Your task to perform on an android device: Search for flights from NYC to San Francisco Image 0: 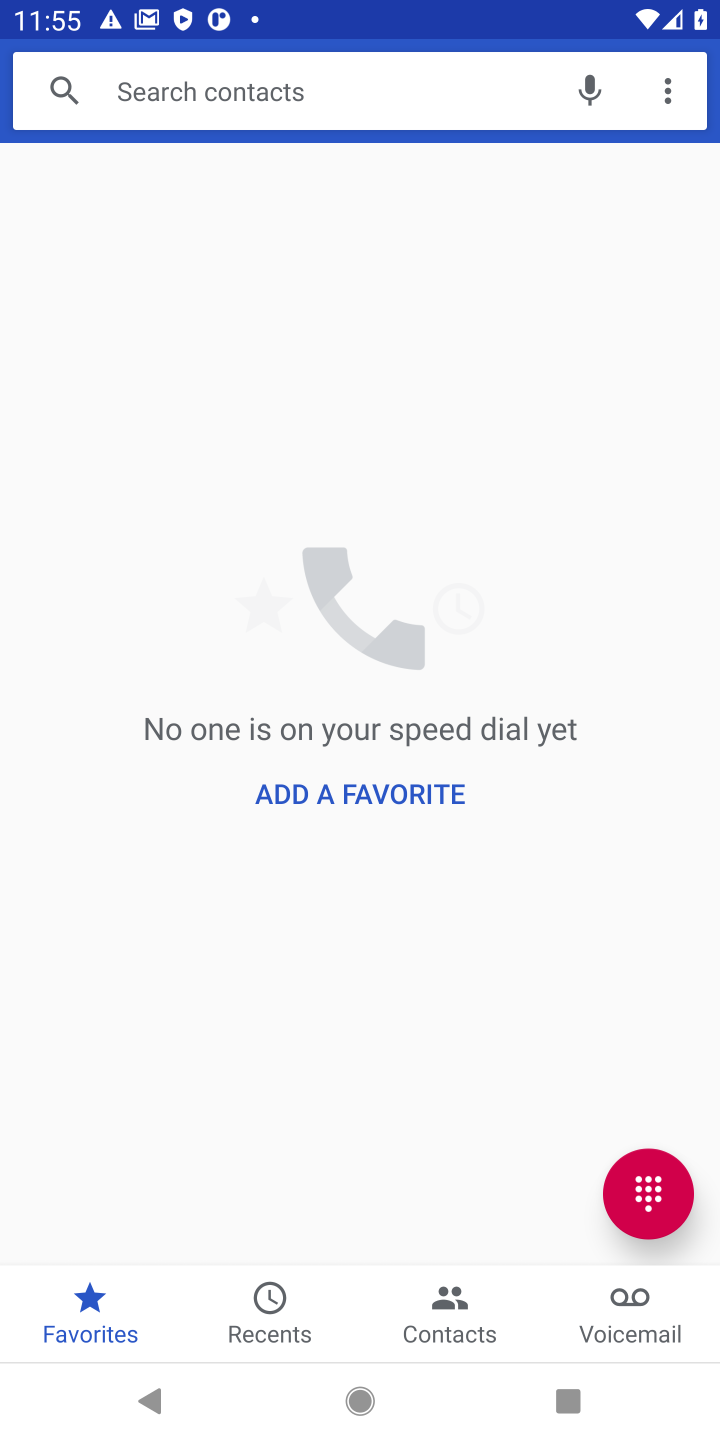
Step 0: press home button
Your task to perform on an android device: Search for flights from NYC to San Francisco Image 1: 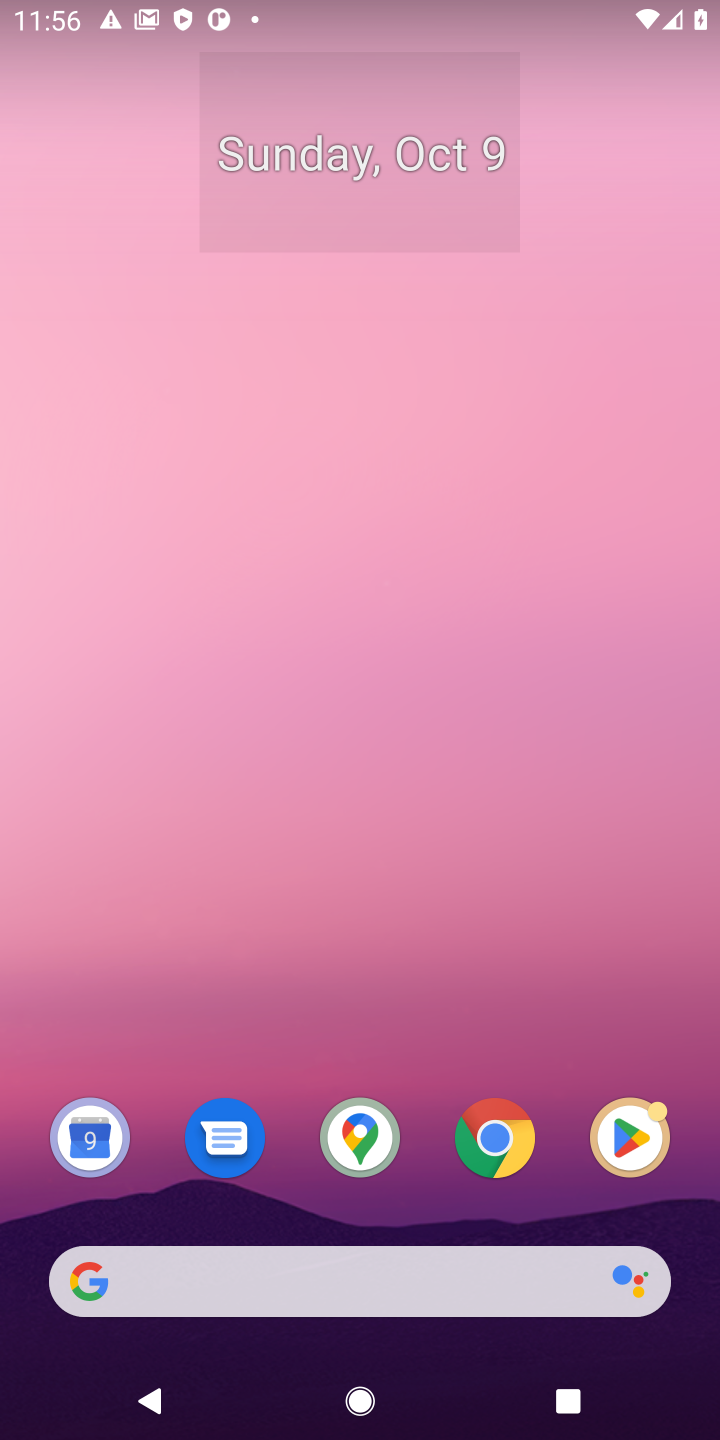
Step 1: click (481, 1177)
Your task to perform on an android device: Search for flights from NYC to San Francisco Image 2: 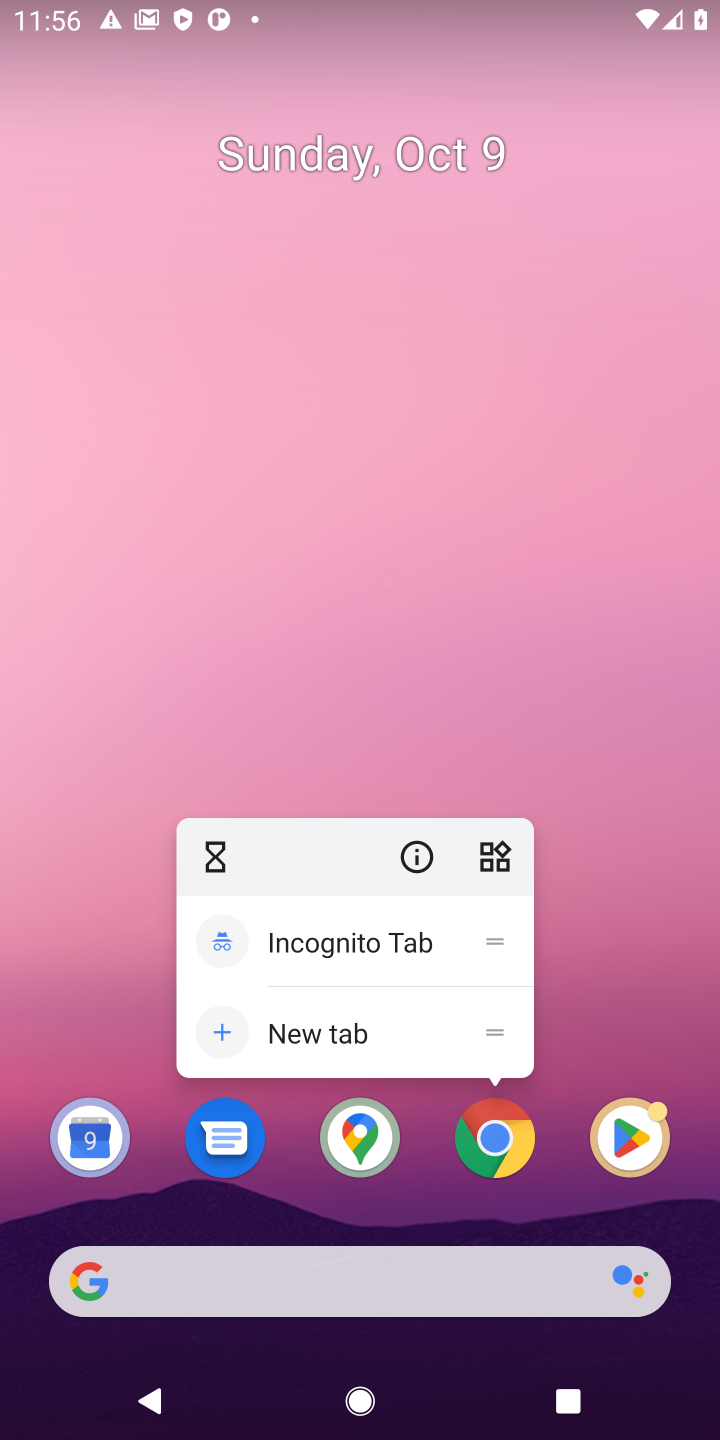
Step 2: click (478, 1182)
Your task to perform on an android device: Search for flights from NYC to San Francisco Image 3: 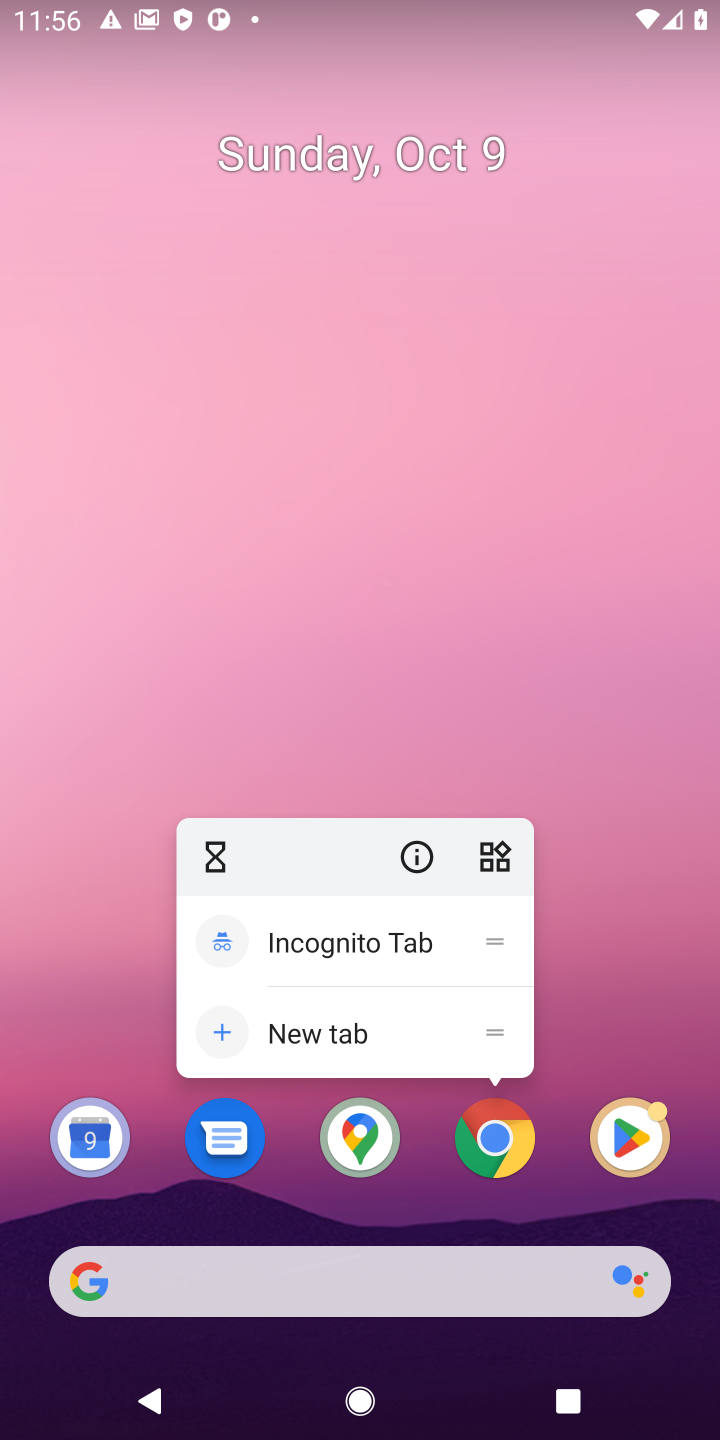
Step 3: click (522, 1136)
Your task to perform on an android device: Search for flights from NYC to San Francisco Image 4: 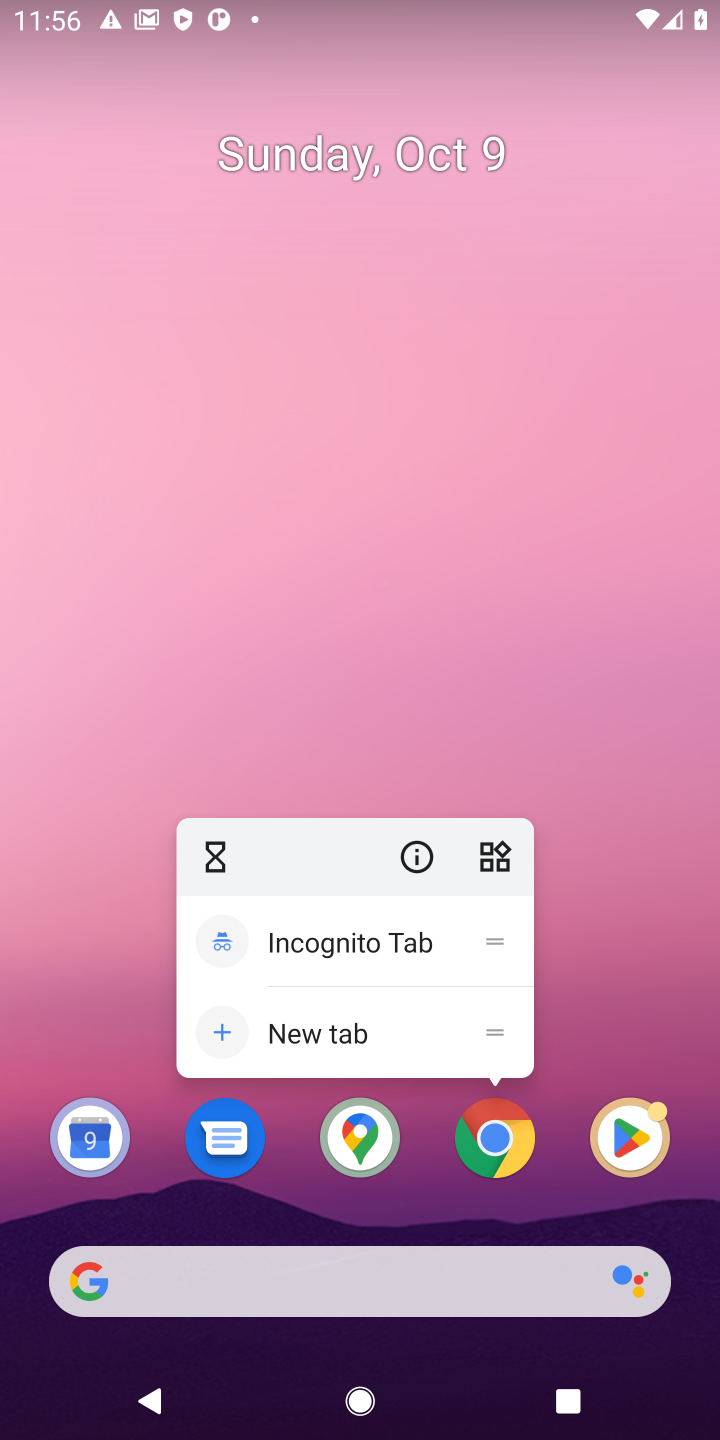
Step 4: click (512, 1141)
Your task to perform on an android device: Search for flights from NYC to San Francisco Image 5: 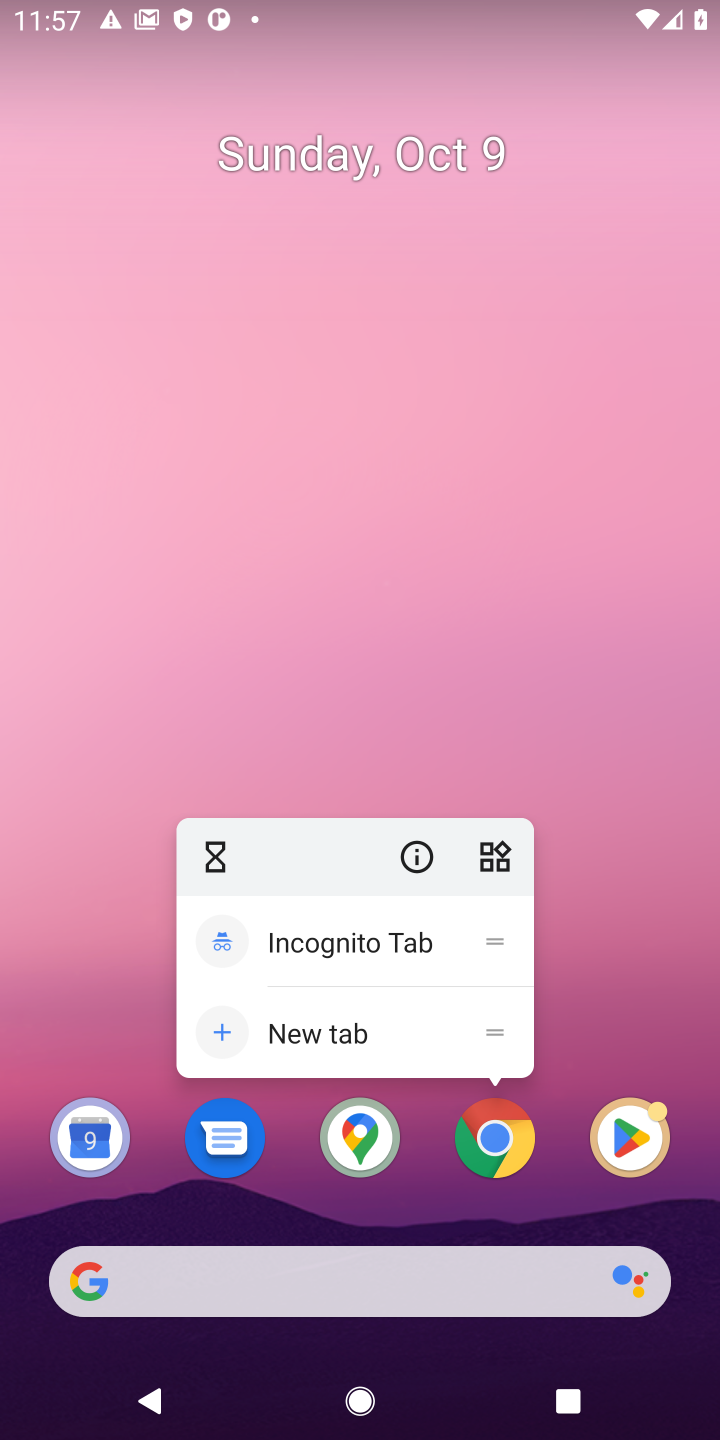
Step 5: click (512, 1141)
Your task to perform on an android device: Search for flights from NYC to San Francisco Image 6: 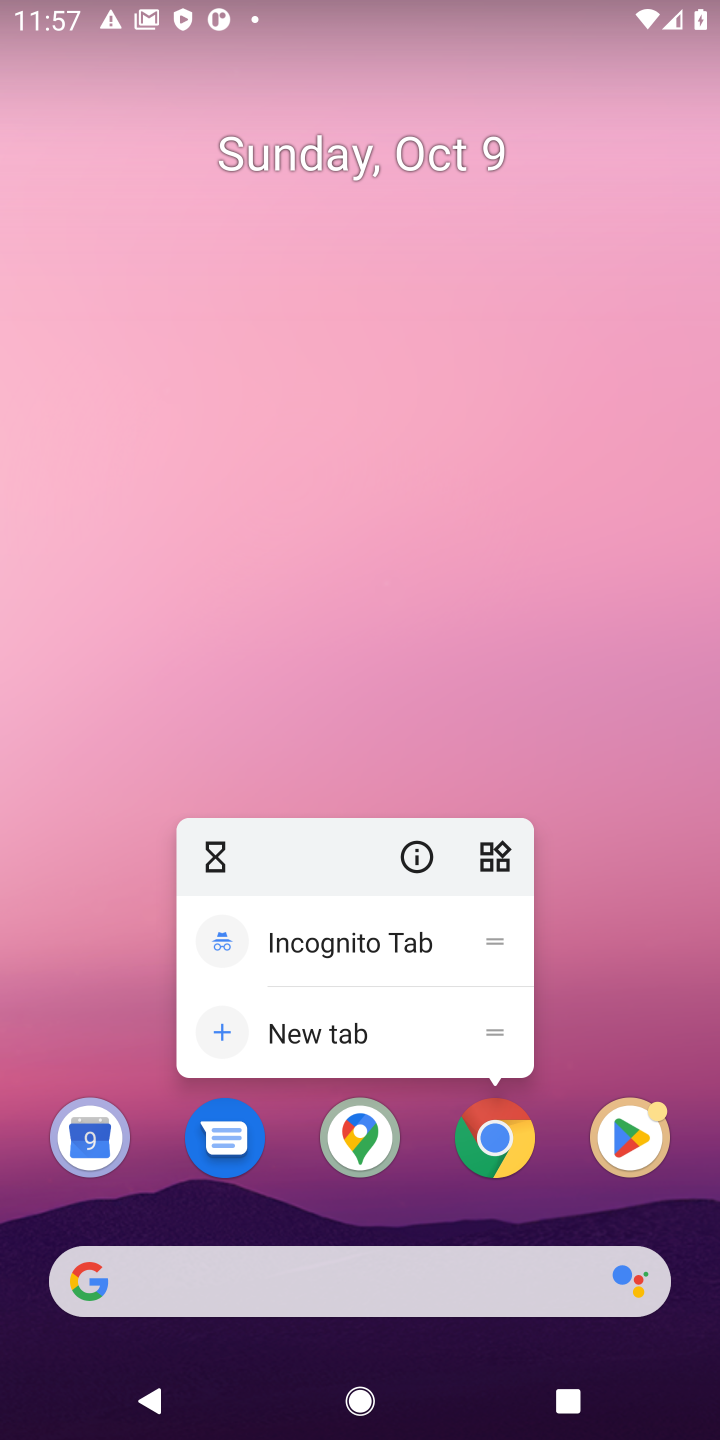
Step 6: click (512, 1141)
Your task to perform on an android device: Search for flights from NYC to San Francisco Image 7: 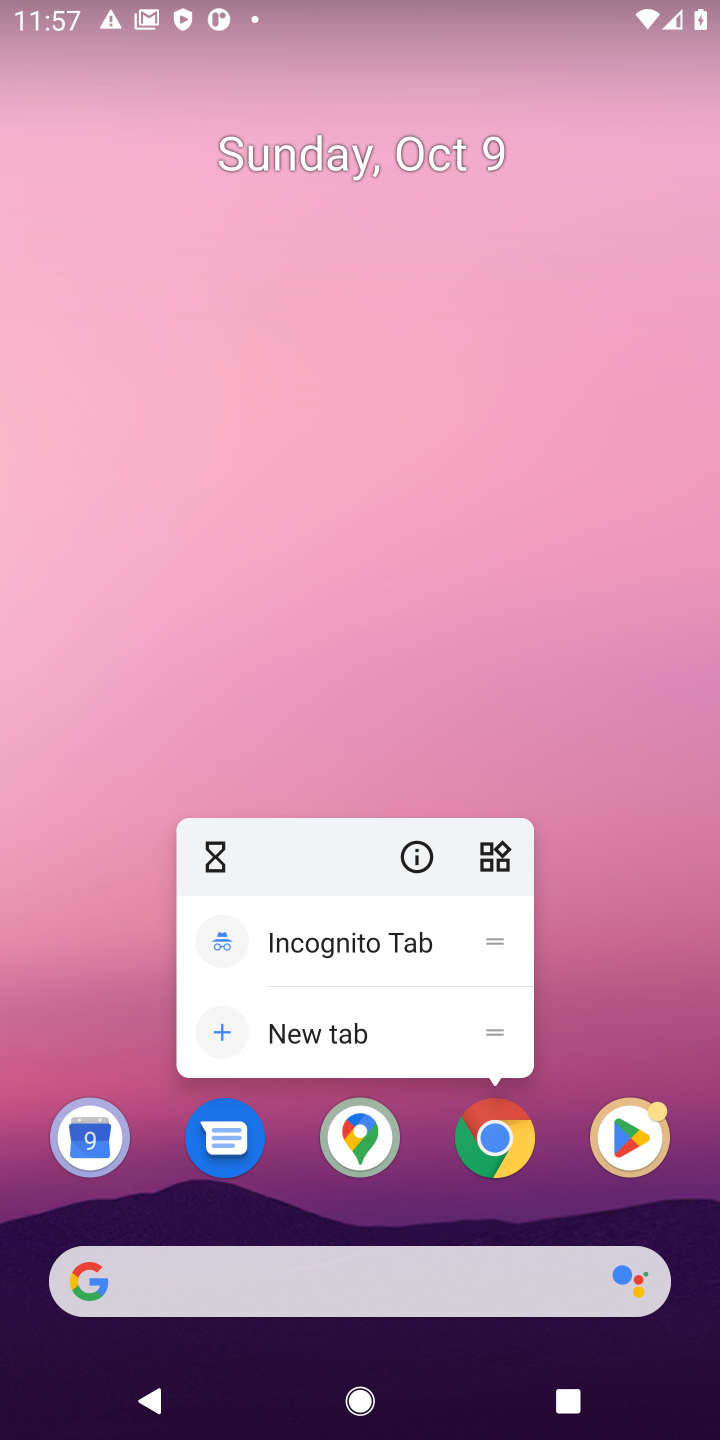
Step 7: click (513, 1160)
Your task to perform on an android device: Search for flights from NYC to San Francisco Image 8: 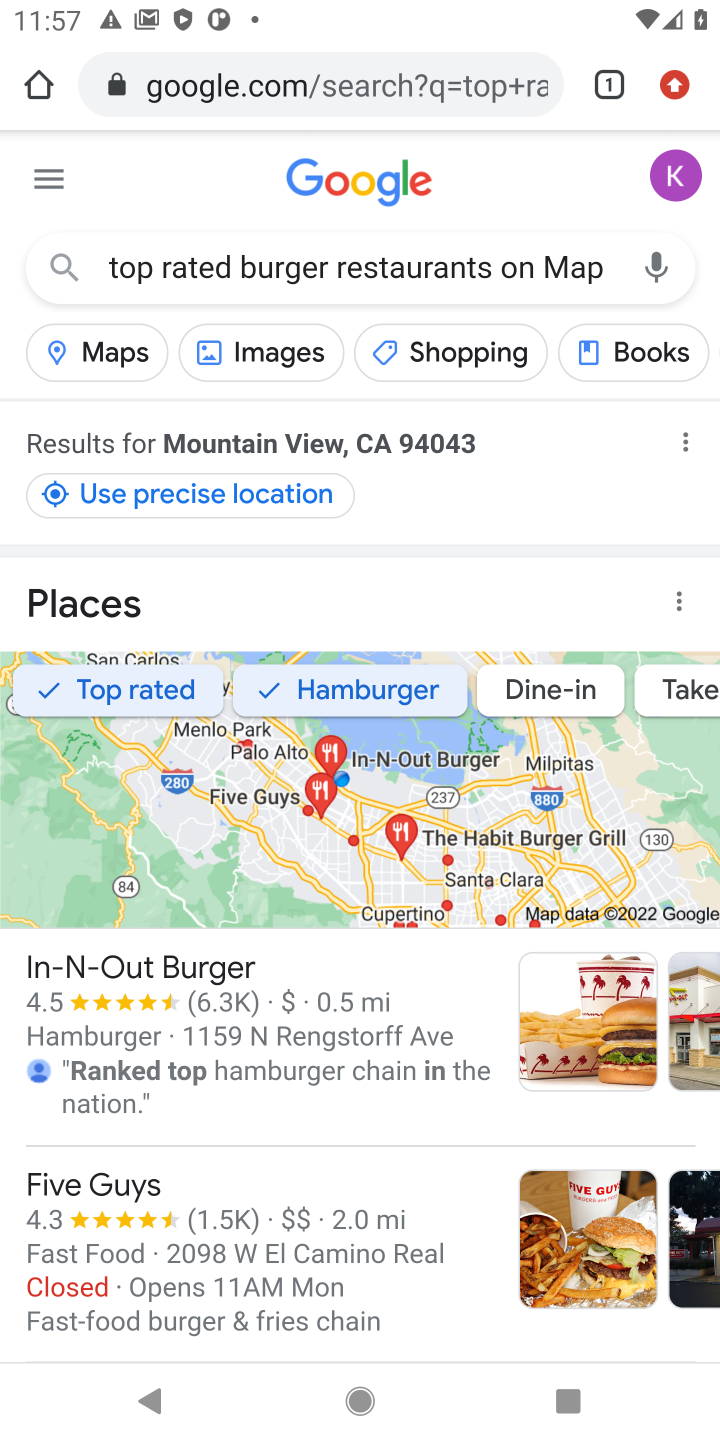
Step 8: click (500, 281)
Your task to perform on an android device: Search for flights from NYC to San Francisco Image 9: 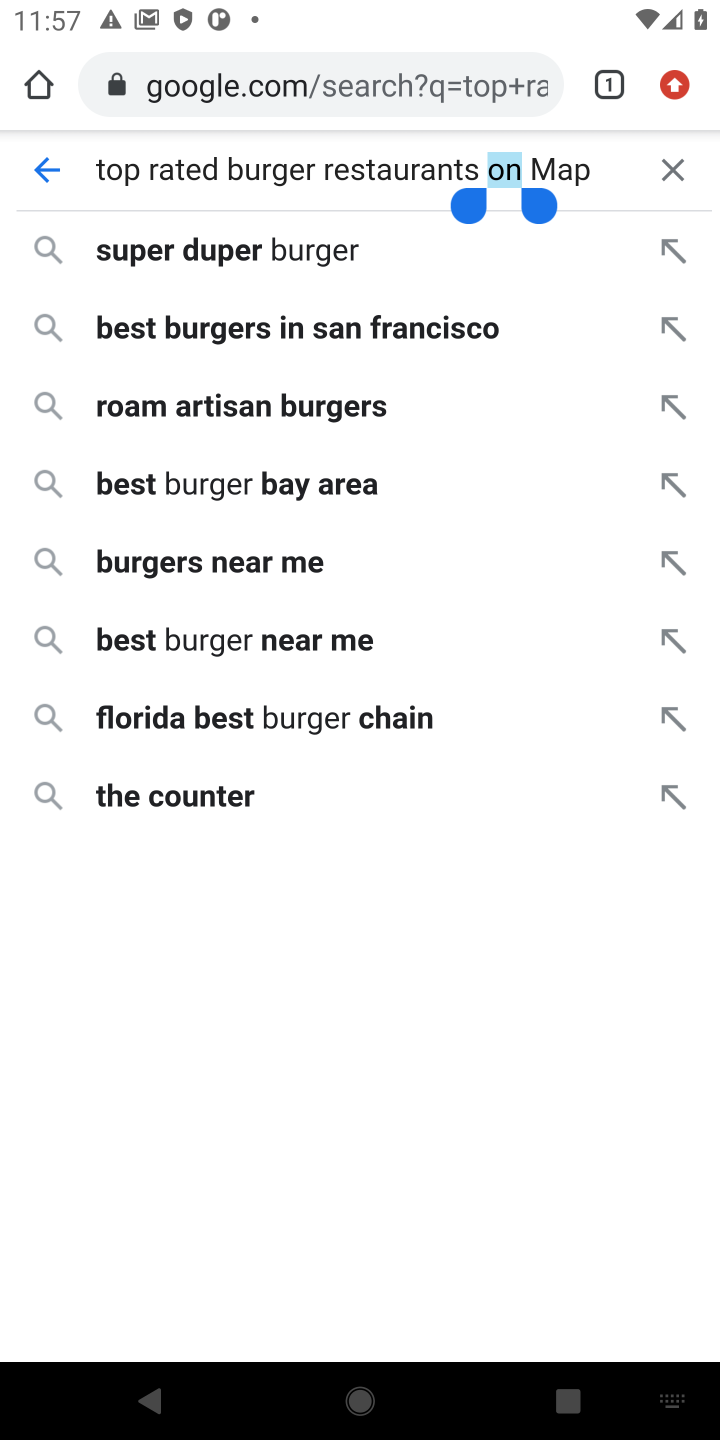
Step 9: click (676, 182)
Your task to perform on an android device: Search for flights from NYC to San Francisco Image 10: 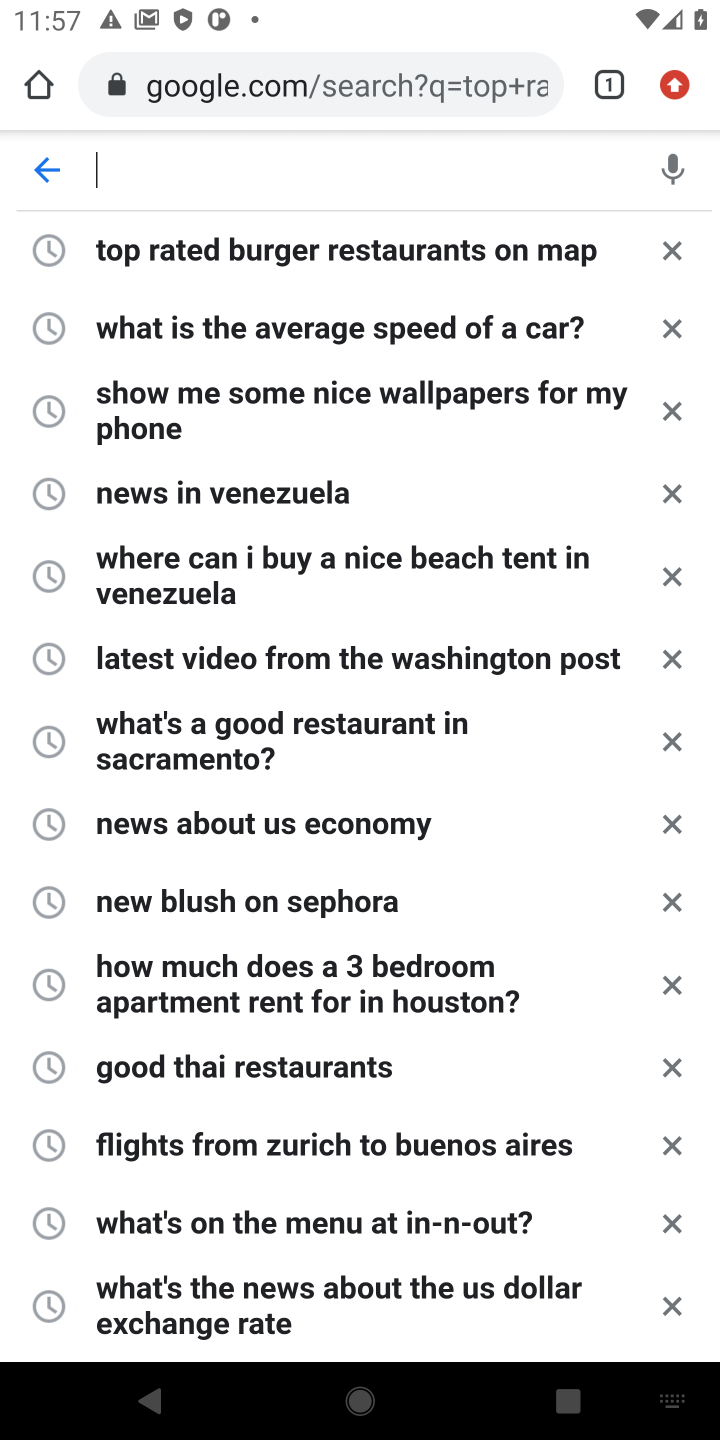
Step 10: type "lights from NYC to San Francisco"
Your task to perform on an android device: Search for flights from NYC to San Francisco Image 11: 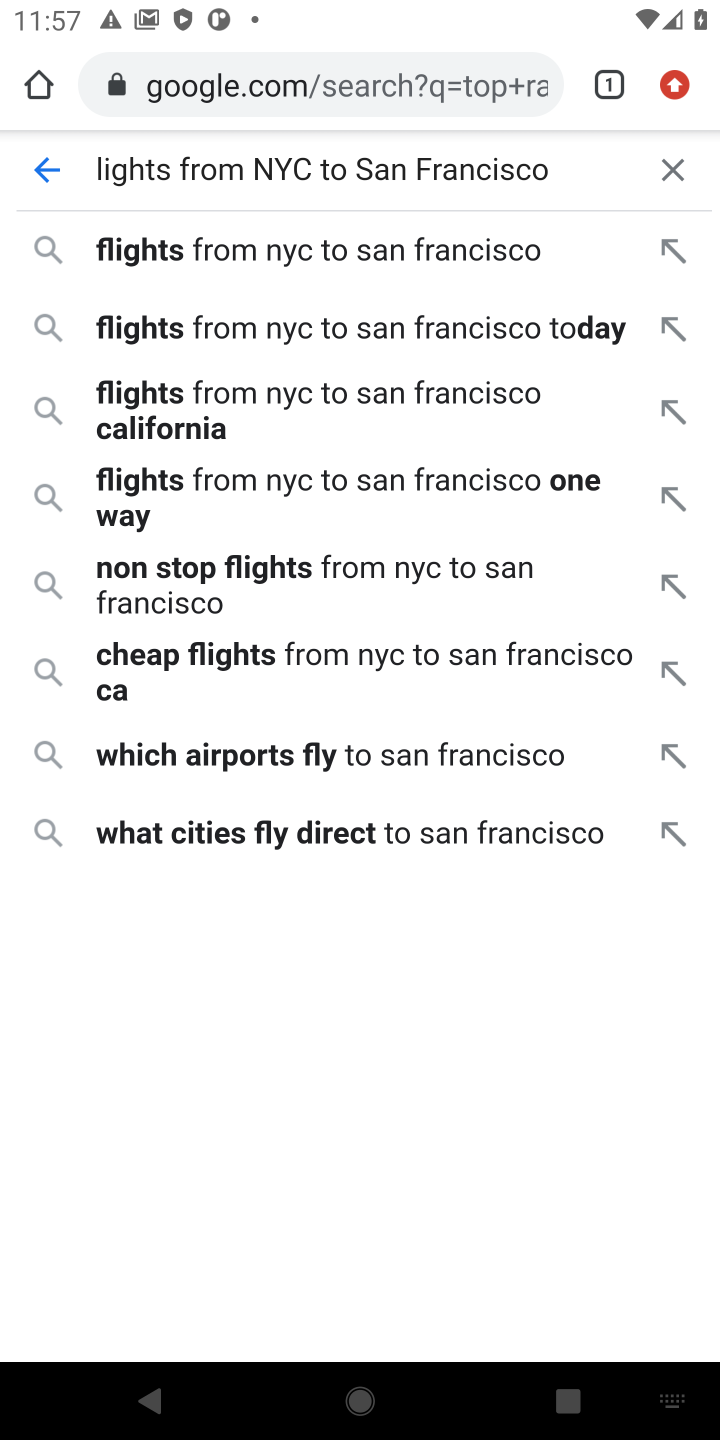
Step 11: press enter
Your task to perform on an android device: Search for flights from NYC to San Francisco Image 12: 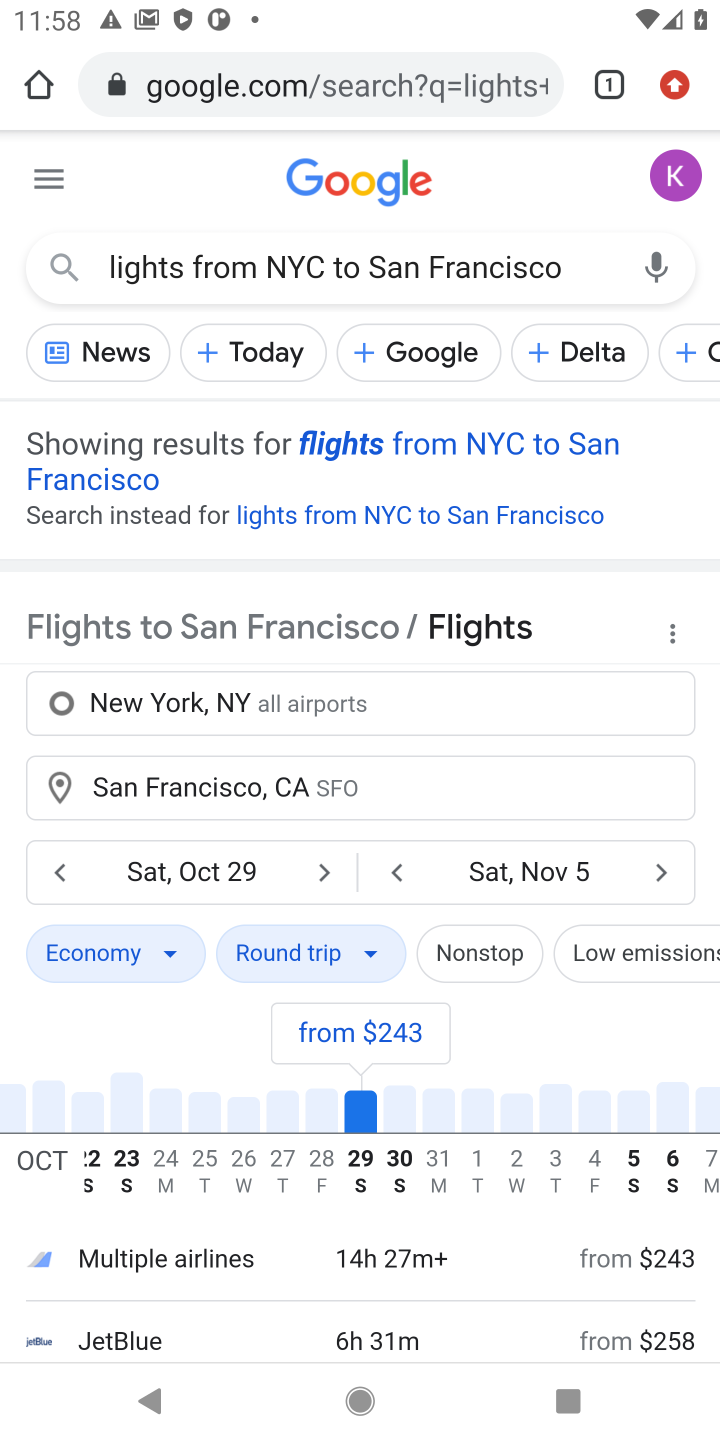
Step 12: task complete